Your task to perform on an android device: Install the News app Image 0: 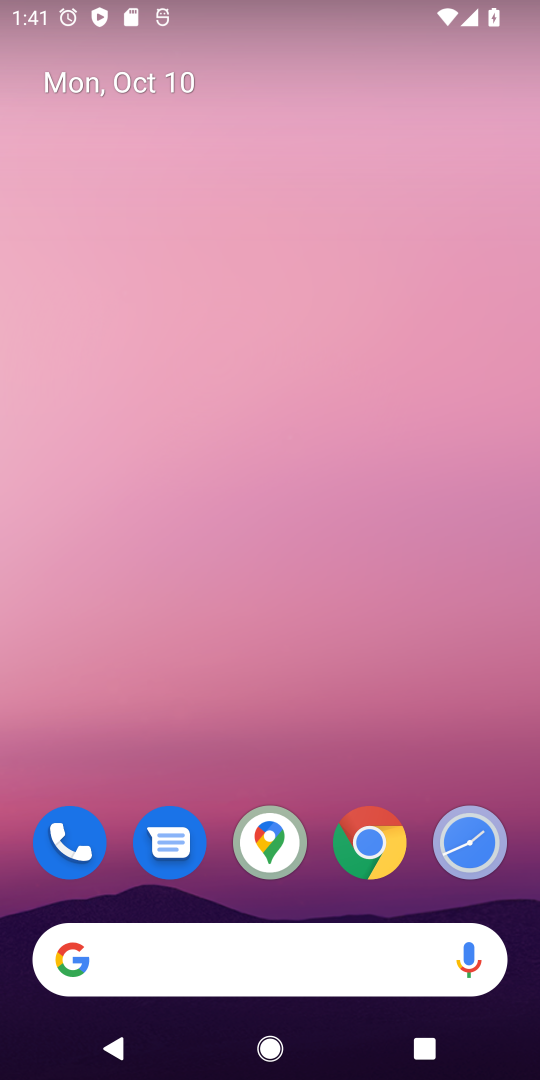
Step 0: drag from (260, 767) to (274, 455)
Your task to perform on an android device: Install the News app Image 1: 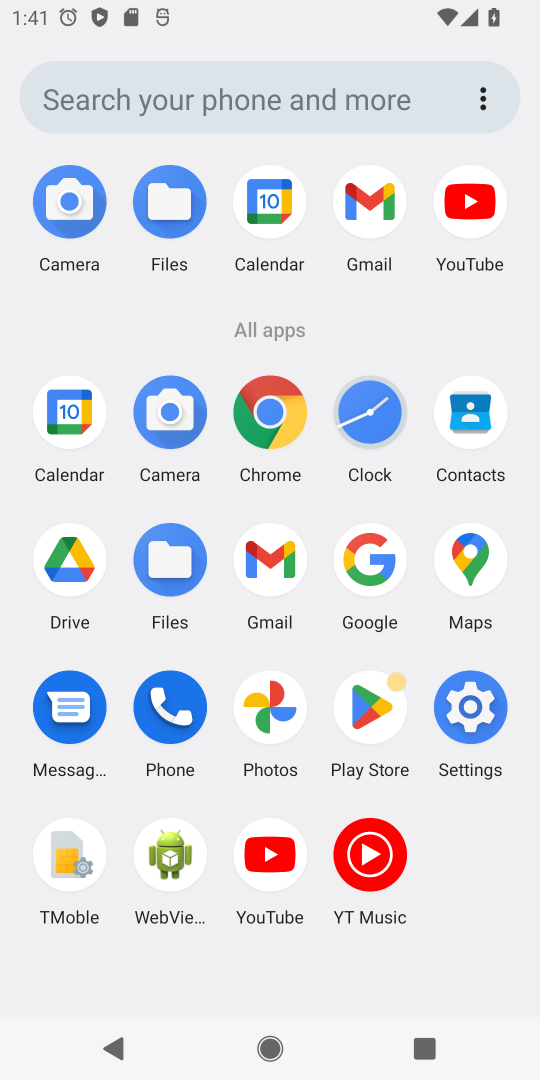
Step 1: click (385, 721)
Your task to perform on an android device: Install the News app Image 2: 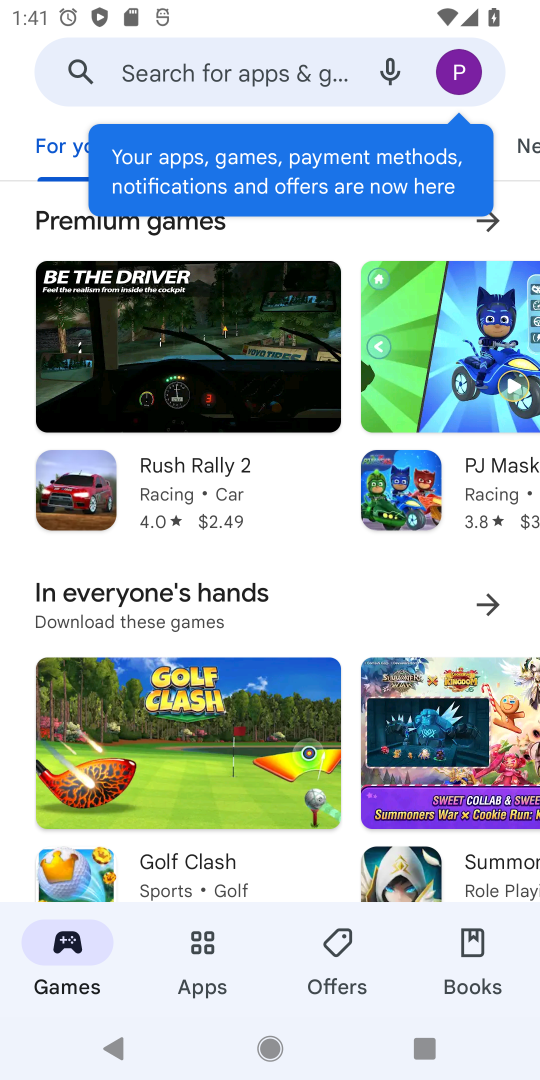
Step 2: click (285, 78)
Your task to perform on an android device: Install the News app Image 3: 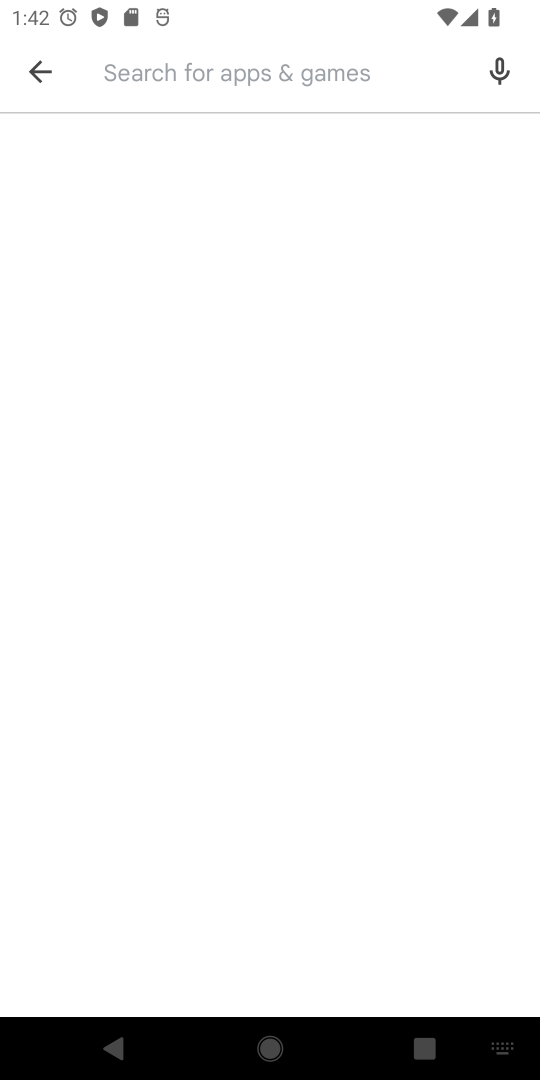
Step 3: type "news"
Your task to perform on an android device: Install the News app Image 4: 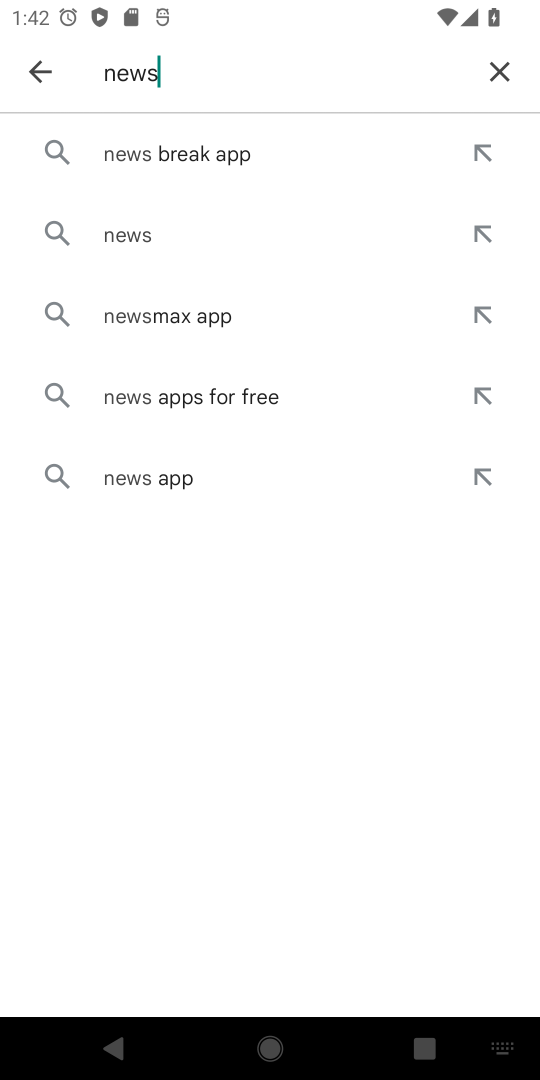
Step 4: press enter
Your task to perform on an android device: Install the News app Image 5: 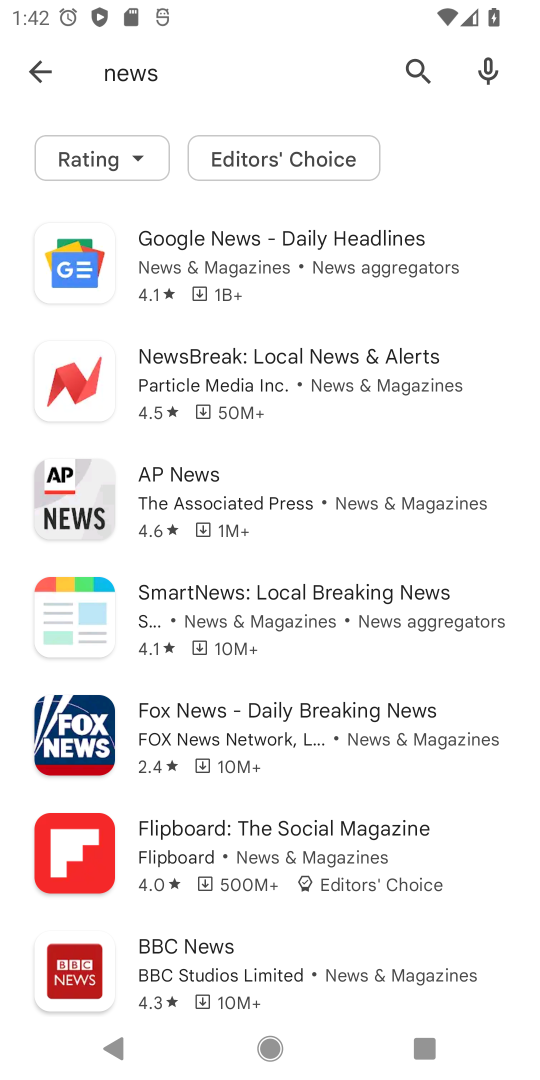
Step 5: click (272, 253)
Your task to perform on an android device: Install the News app Image 6: 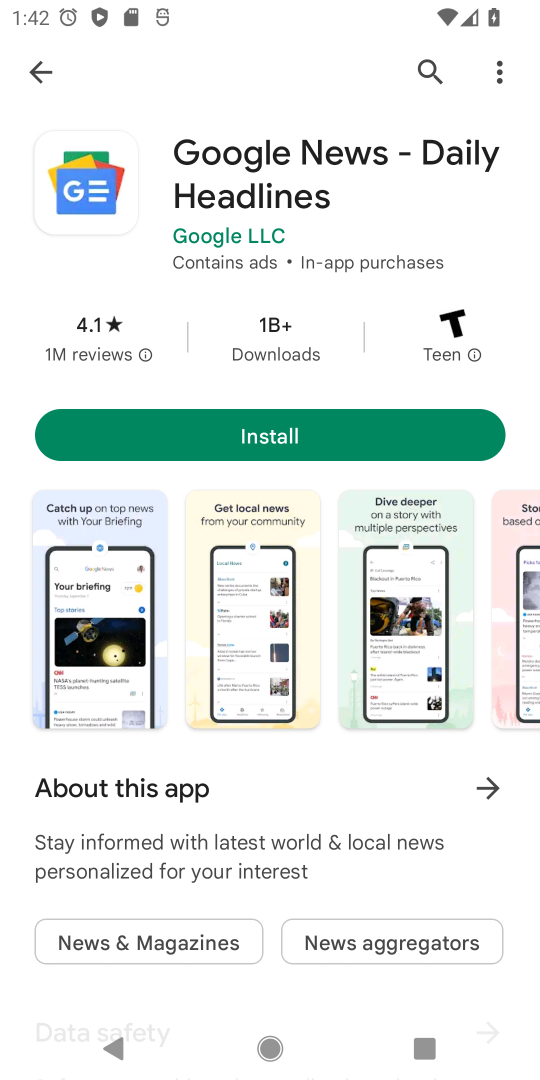
Step 6: click (268, 432)
Your task to perform on an android device: Install the News app Image 7: 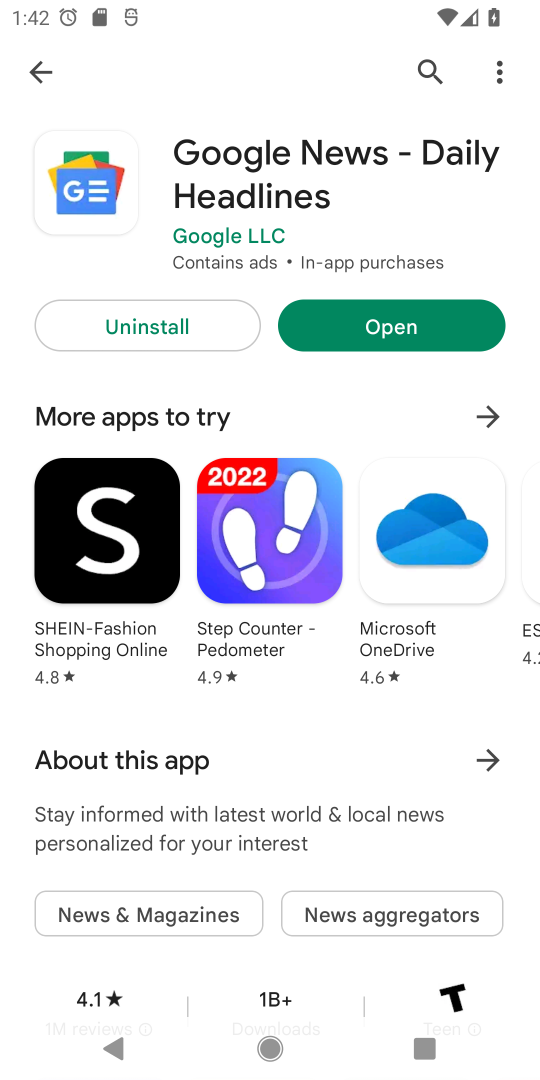
Step 7: drag from (297, 380) to (385, 1)
Your task to perform on an android device: Install the News app Image 8: 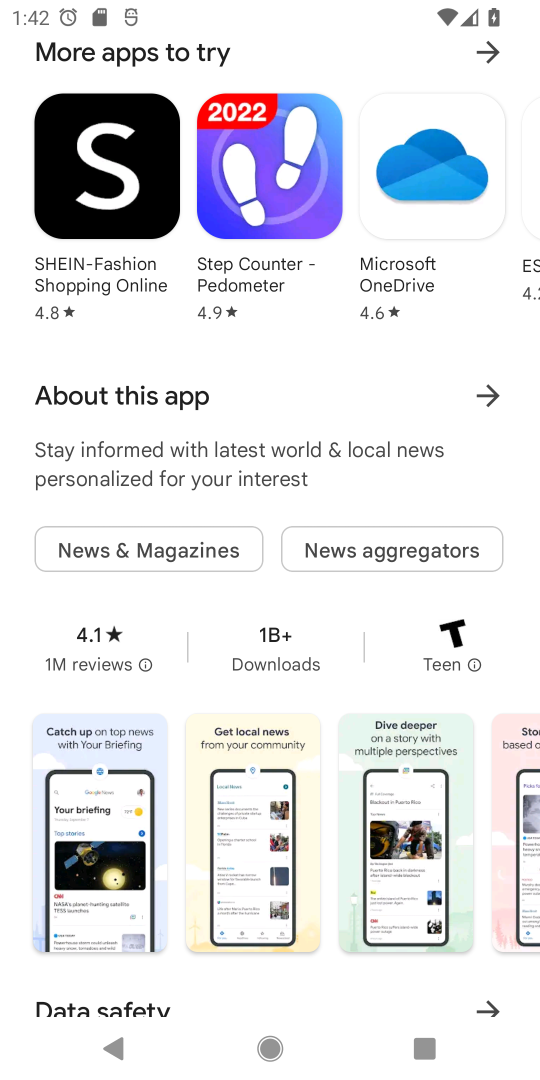
Step 8: drag from (336, 410) to (333, 140)
Your task to perform on an android device: Install the News app Image 9: 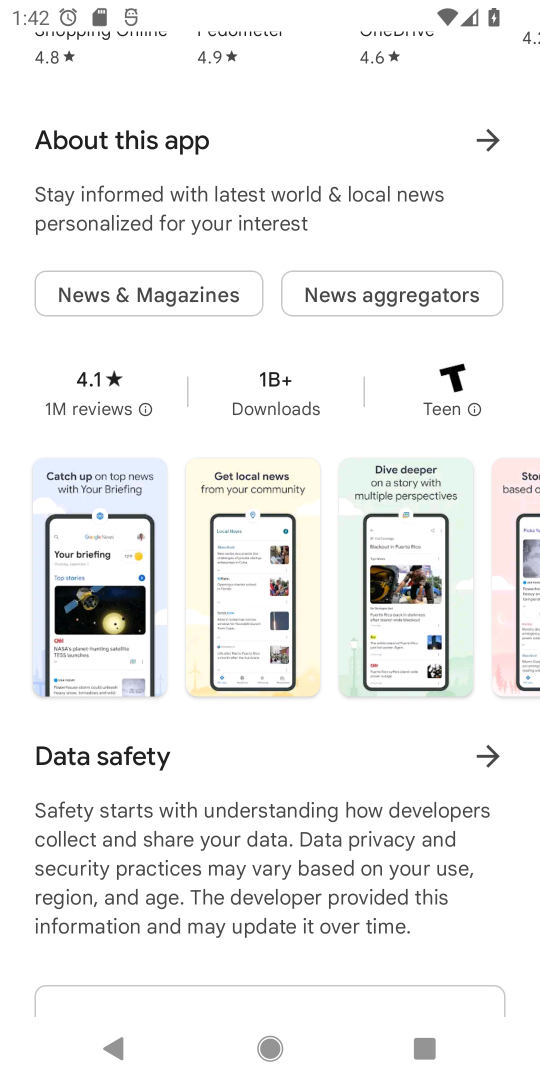
Step 9: drag from (323, 551) to (316, 255)
Your task to perform on an android device: Install the News app Image 10: 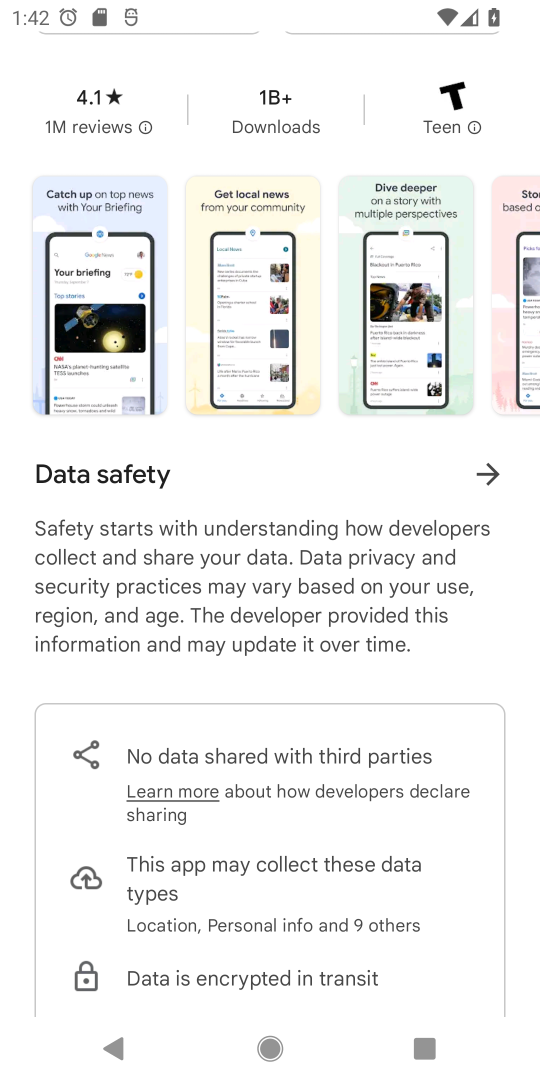
Step 10: click (316, 255)
Your task to perform on an android device: Install the News app Image 11: 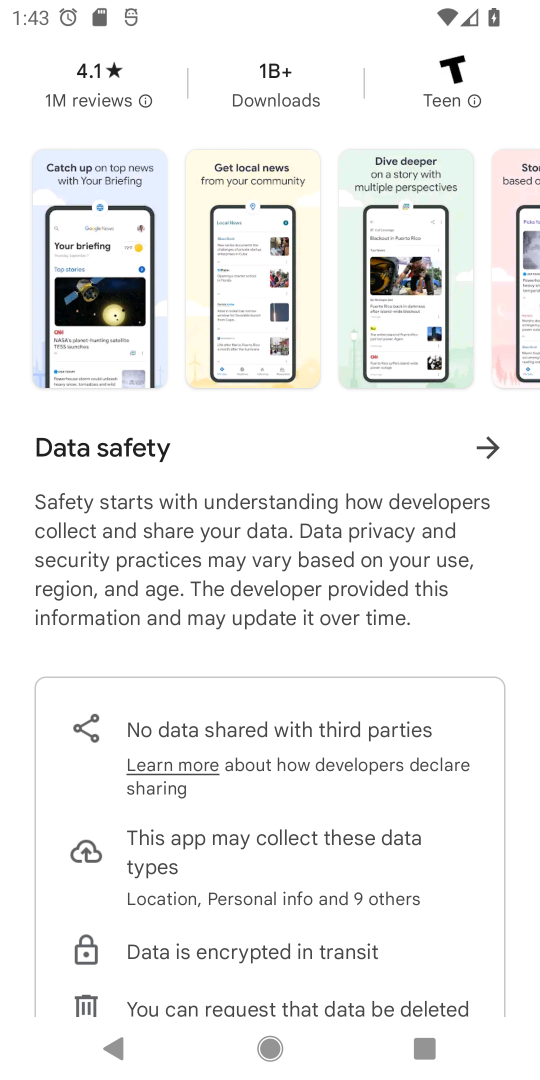
Step 11: task complete